Your task to perform on an android device: see tabs open on other devices in the chrome app Image 0: 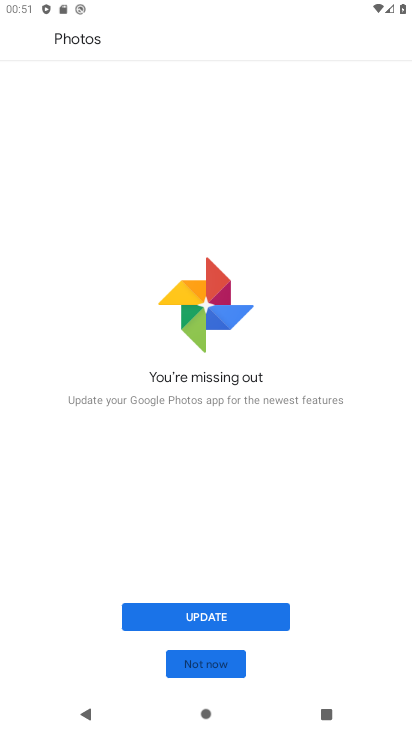
Step 0: press home button
Your task to perform on an android device: see tabs open on other devices in the chrome app Image 1: 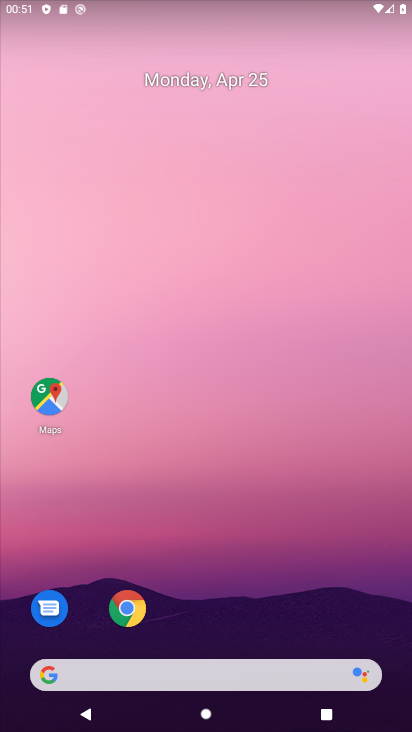
Step 1: click (128, 614)
Your task to perform on an android device: see tabs open on other devices in the chrome app Image 2: 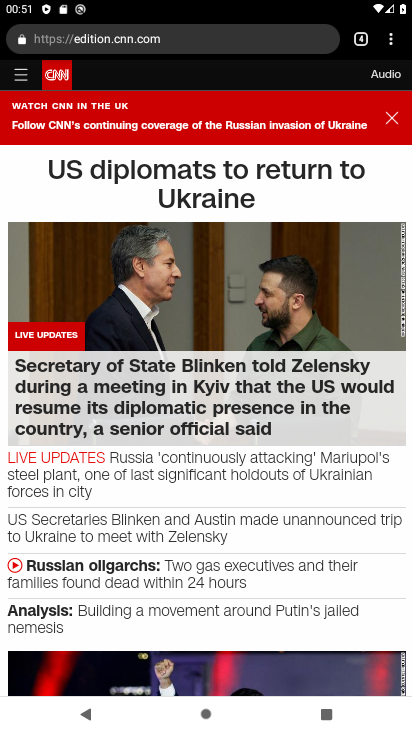
Step 2: click (395, 45)
Your task to perform on an android device: see tabs open on other devices in the chrome app Image 3: 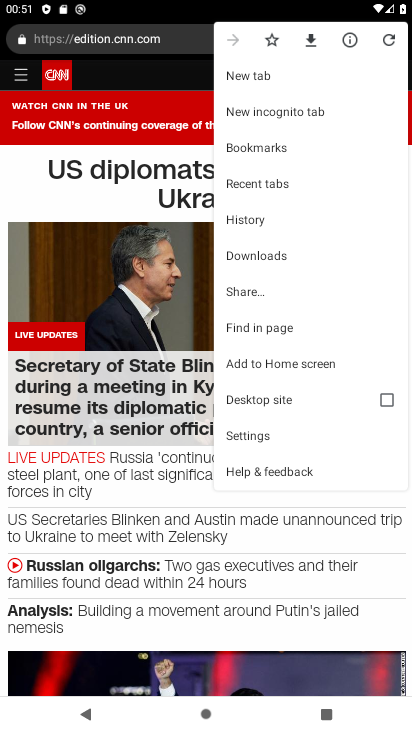
Step 3: click (296, 186)
Your task to perform on an android device: see tabs open on other devices in the chrome app Image 4: 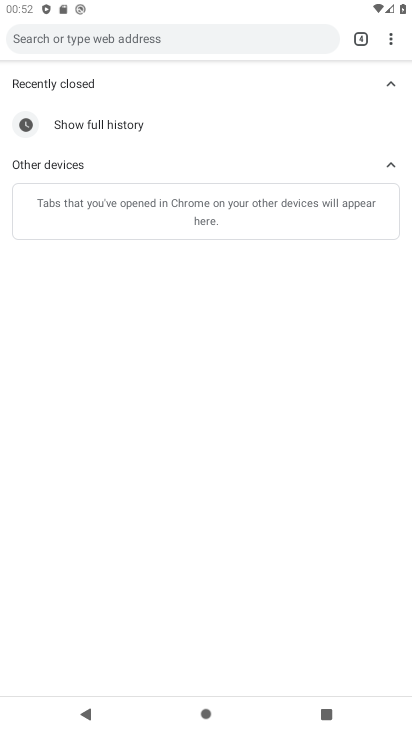
Step 4: task complete